Your task to perform on an android device: see creations saved in the google photos Image 0: 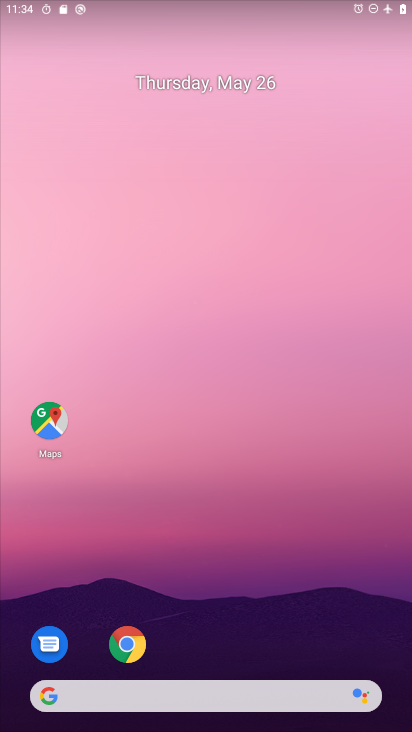
Step 0: drag from (368, 645) to (365, 246)
Your task to perform on an android device: see creations saved in the google photos Image 1: 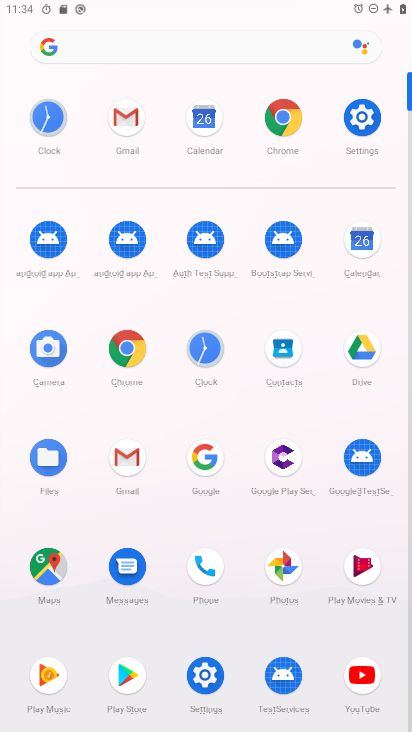
Step 1: click (283, 567)
Your task to perform on an android device: see creations saved in the google photos Image 2: 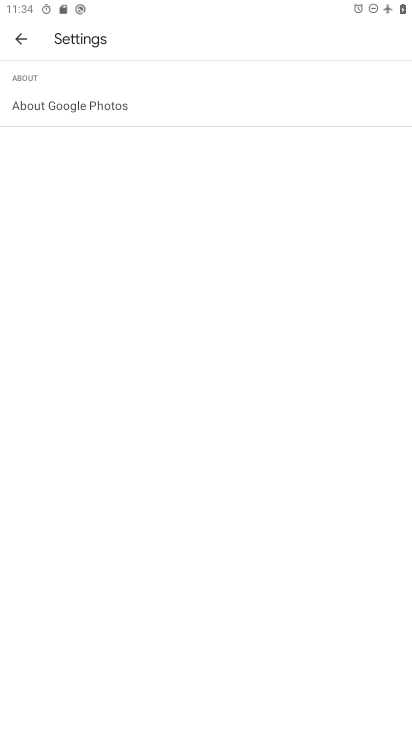
Step 2: click (27, 38)
Your task to perform on an android device: see creations saved in the google photos Image 3: 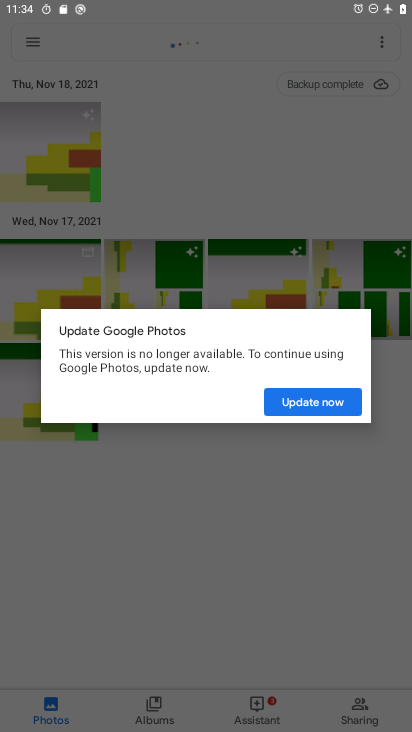
Step 3: click (304, 407)
Your task to perform on an android device: see creations saved in the google photos Image 4: 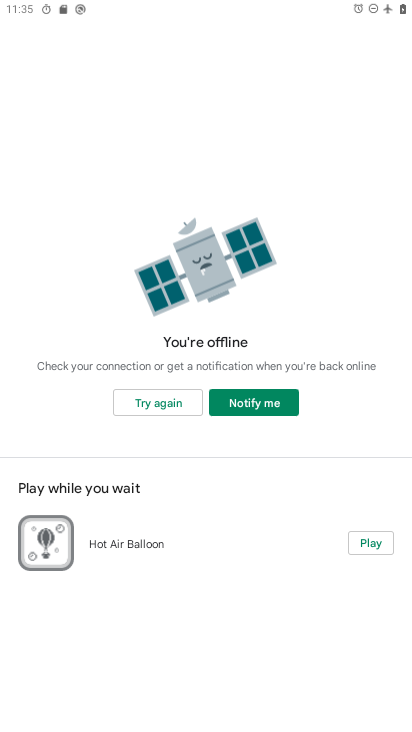
Step 4: click (176, 405)
Your task to perform on an android device: see creations saved in the google photos Image 5: 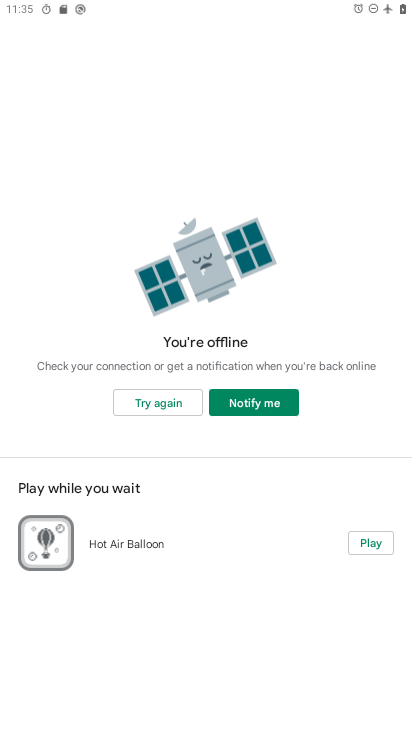
Step 5: task complete